Your task to perform on an android device: Search for Mexican restaurants on Maps Image 0: 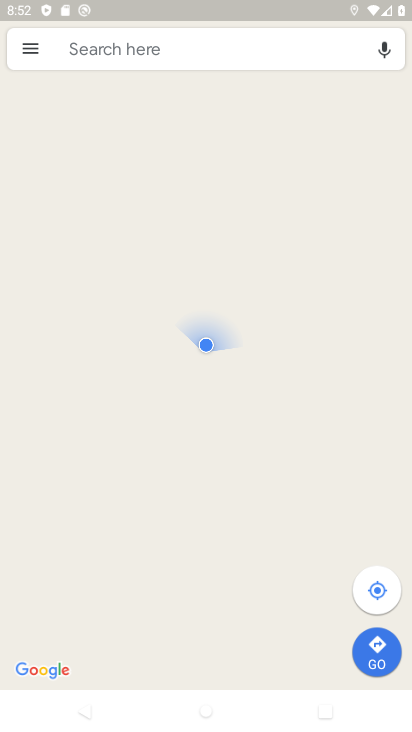
Step 0: click (173, 47)
Your task to perform on an android device: Search for Mexican restaurants on Maps Image 1: 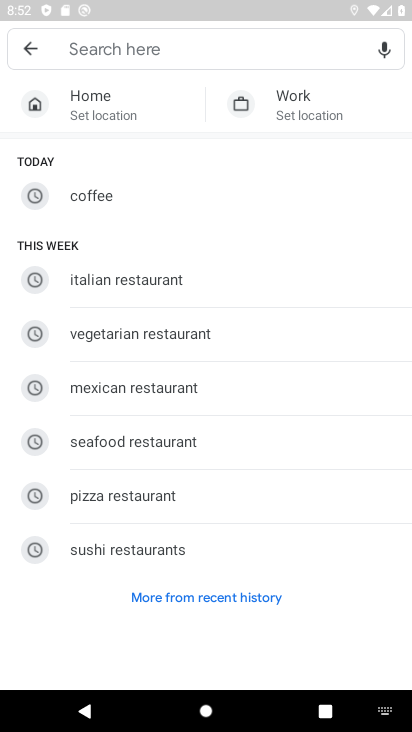
Step 1: type "mexican restaurants"
Your task to perform on an android device: Search for Mexican restaurants on Maps Image 2: 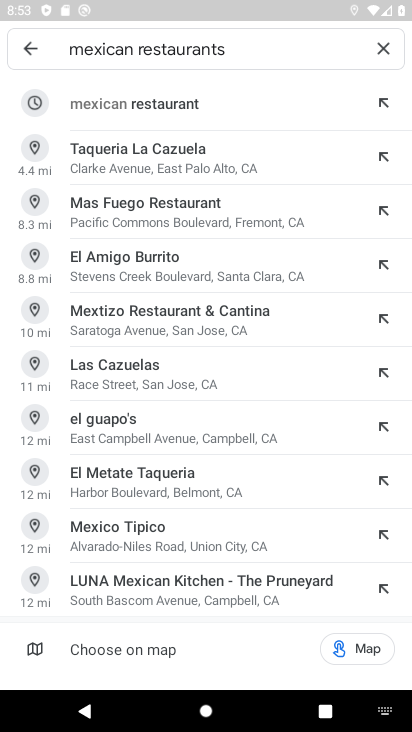
Step 2: click (136, 108)
Your task to perform on an android device: Search for Mexican restaurants on Maps Image 3: 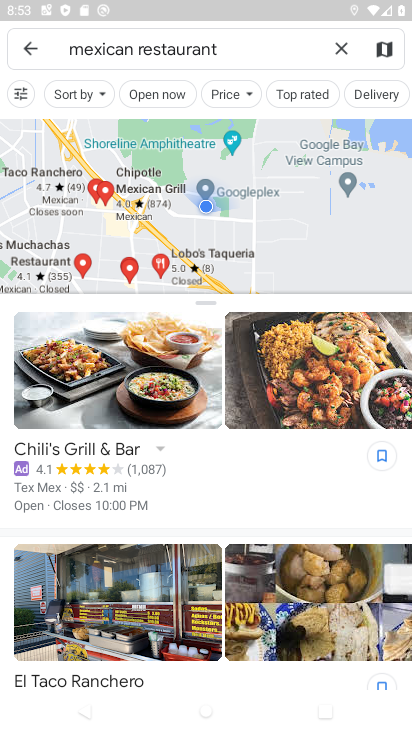
Step 3: task complete